Your task to perform on an android device: Go to internet settings Image 0: 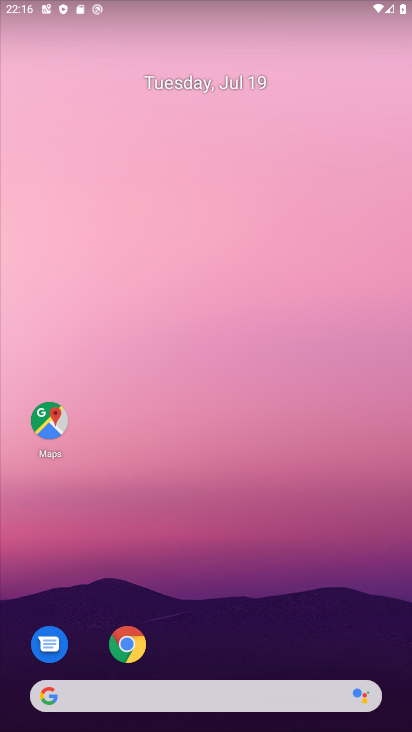
Step 0: drag from (207, 722) to (213, 238)
Your task to perform on an android device: Go to internet settings Image 1: 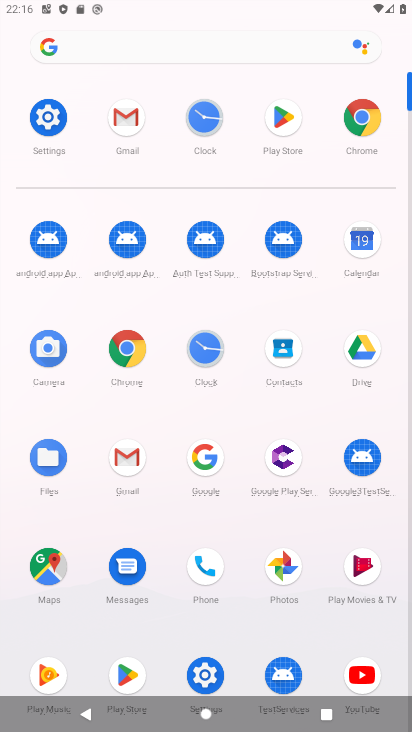
Step 1: click (53, 121)
Your task to perform on an android device: Go to internet settings Image 2: 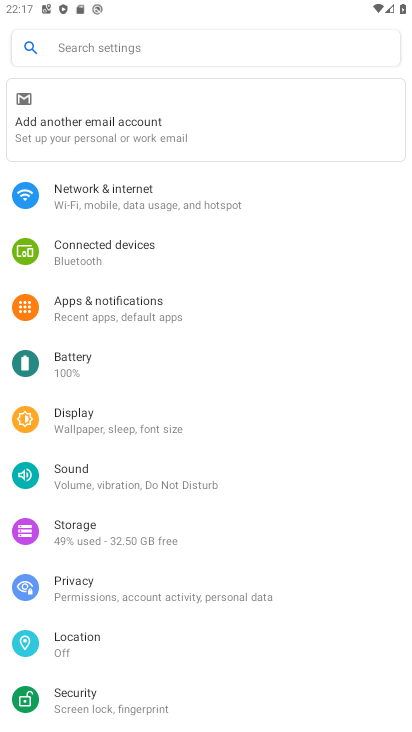
Step 2: click (100, 195)
Your task to perform on an android device: Go to internet settings Image 3: 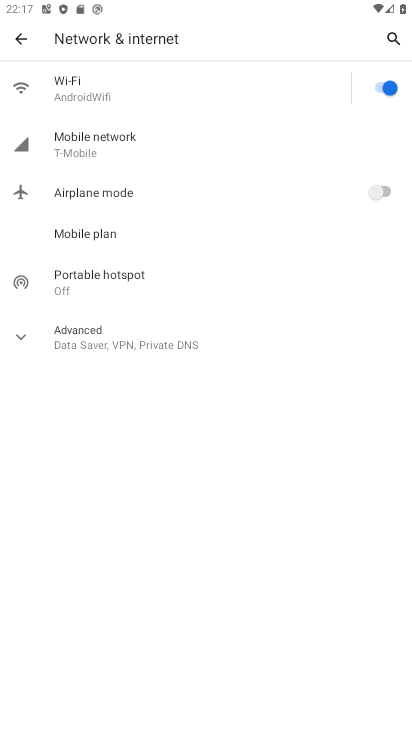
Step 3: task complete